Your task to perform on an android device: What is the news today? Image 0: 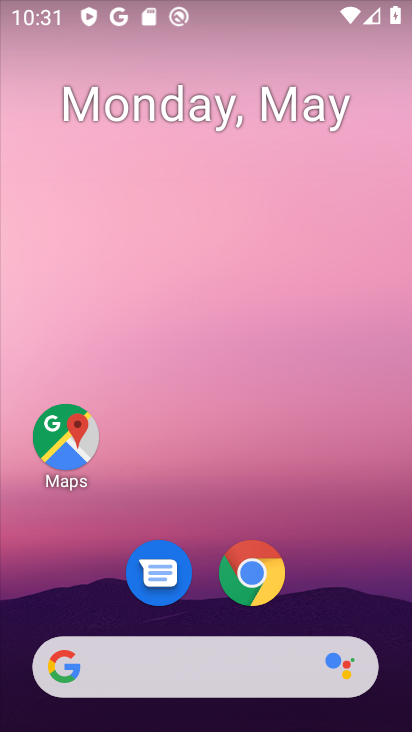
Step 0: drag from (174, 606) to (232, 106)
Your task to perform on an android device: What is the news today? Image 1: 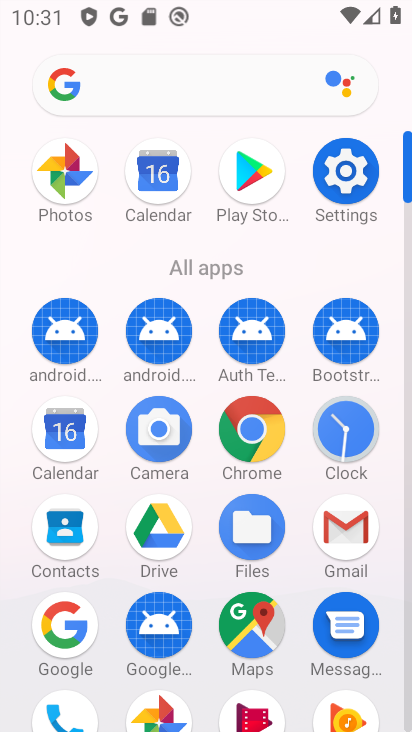
Step 1: click (150, 100)
Your task to perform on an android device: What is the news today? Image 2: 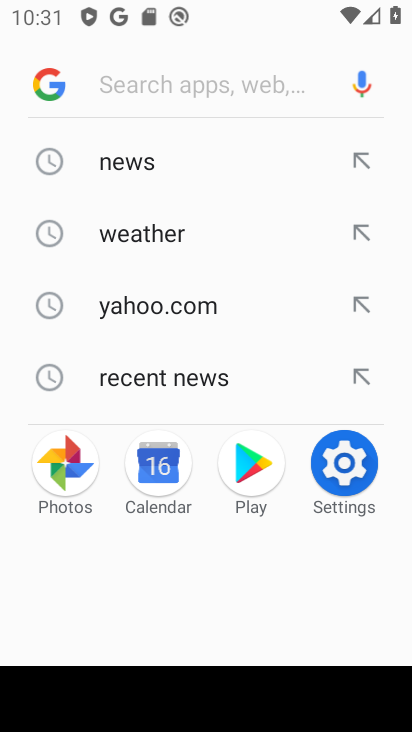
Step 2: type "news today"
Your task to perform on an android device: What is the news today? Image 3: 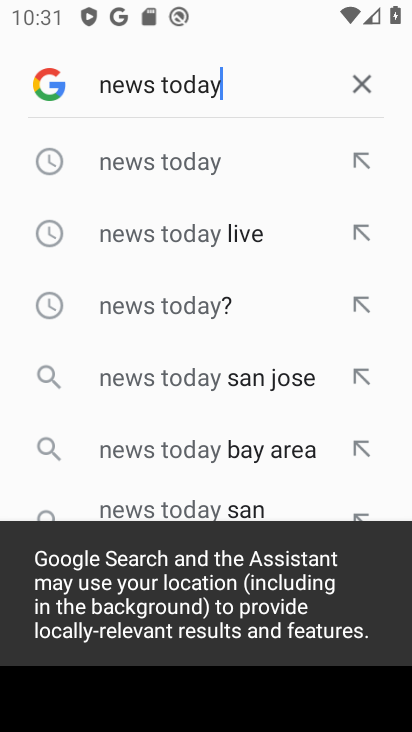
Step 3: click (179, 165)
Your task to perform on an android device: What is the news today? Image 4: 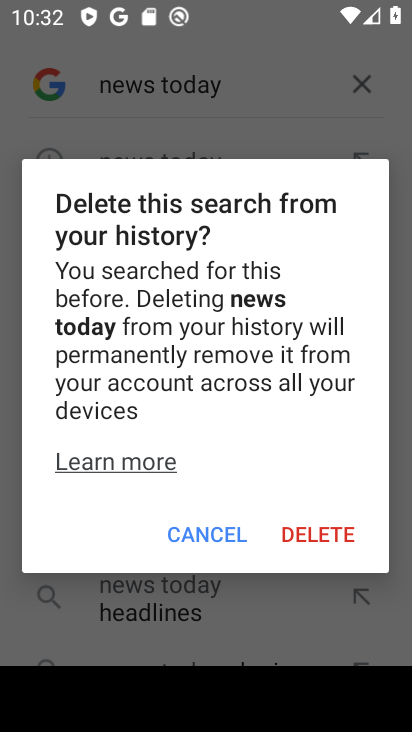
Step 4: click (200, 519)
Your task to perform on an android device: What is the news today? Image 5: 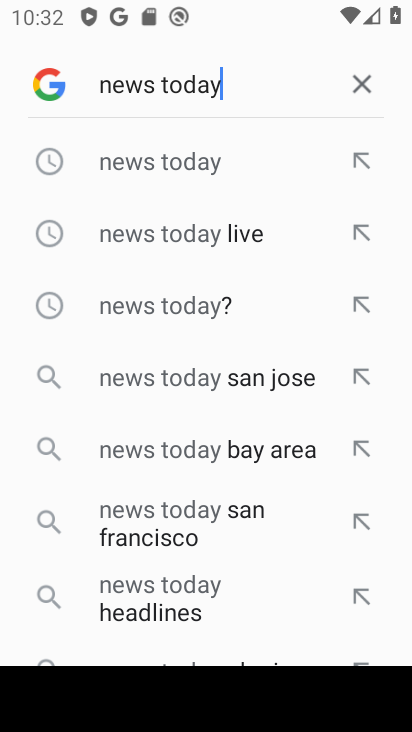
Step 5: click (141, 153)
Your task to perform on an android device: What is the news today? Image 6: 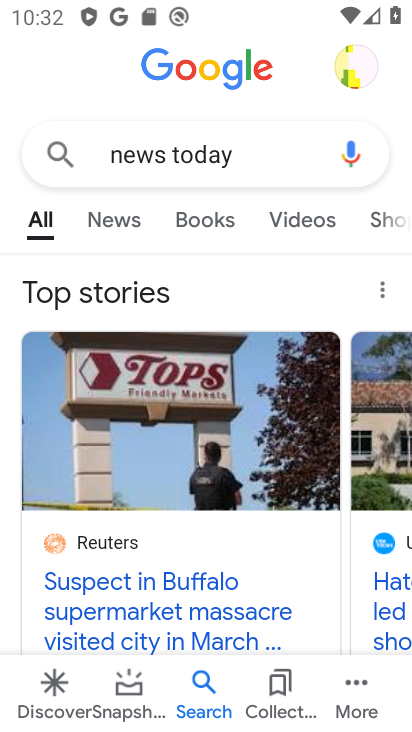
Step 6: task complete